Your task to perform on an android device: turn off sleep mode Image 0: 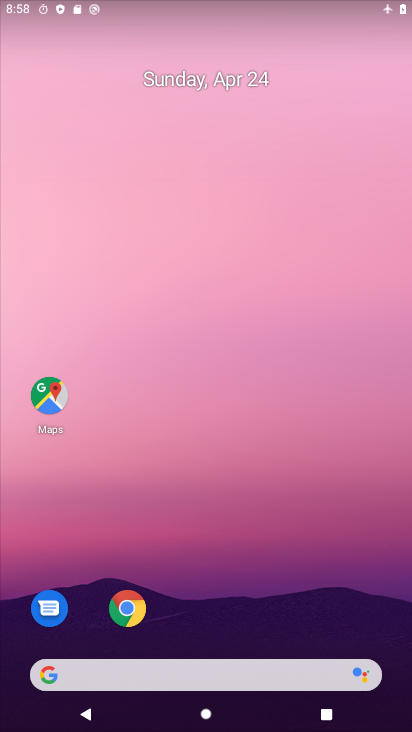
Step 0: drag from (275, 553) to (216, 97)
Your task to perform on an android device: turn off sleep mode Image 1: 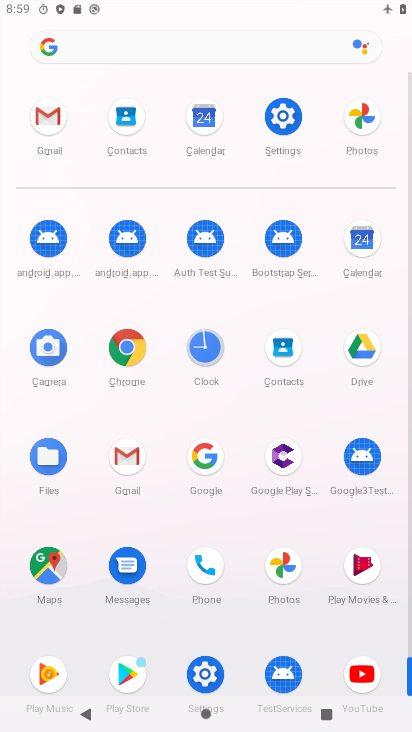
Step 1: click (285, 107)
Your task to perform on an android device: turn off sleep mode Image 2: 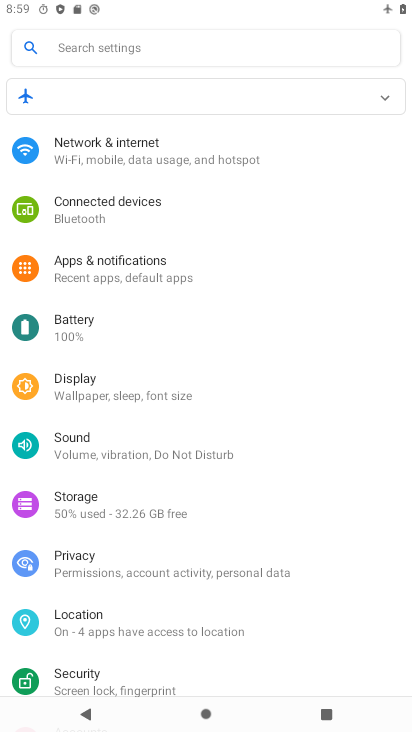
Step 2: click (169, 384)
Your task to perform on an android device: turn off sleep mode Image 3: 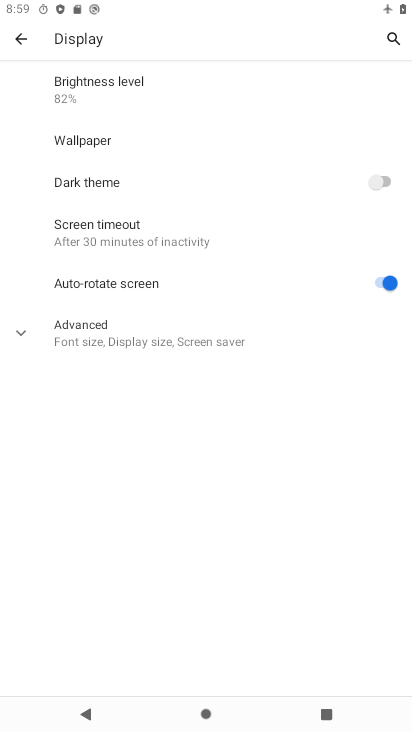
Step 3: click (21, 330)
Your task to perform on an android device: turn off sleep mode Image 4: 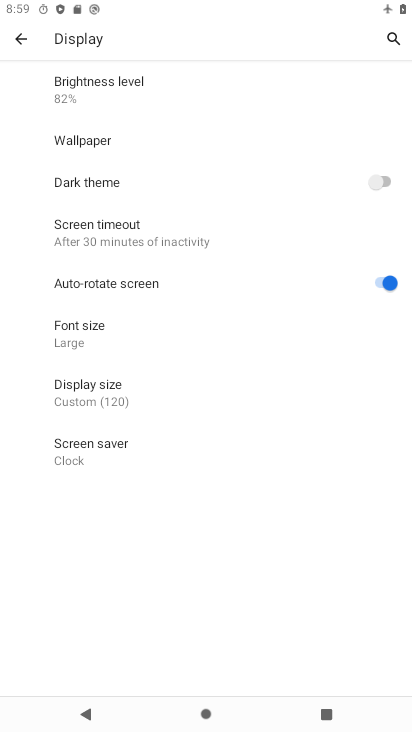
Step 4: task complete